Your task to perform on an android device: Search for macbook air on ebay, select the first entry, and add it to the cart. Image 0: 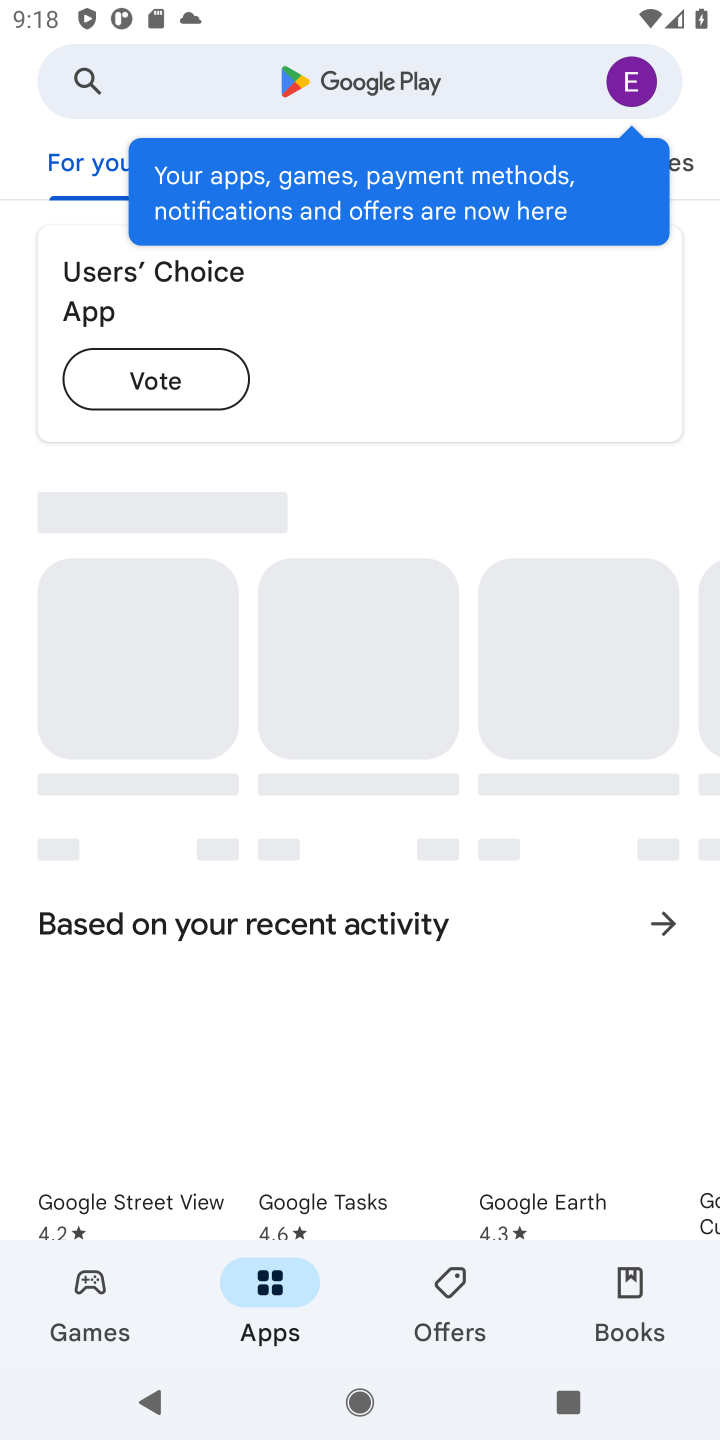
Step 0: press home button
Your task to perform on an android device: Search for macbook air on ebay, select the first entry, and add it to the cart. Image 1: 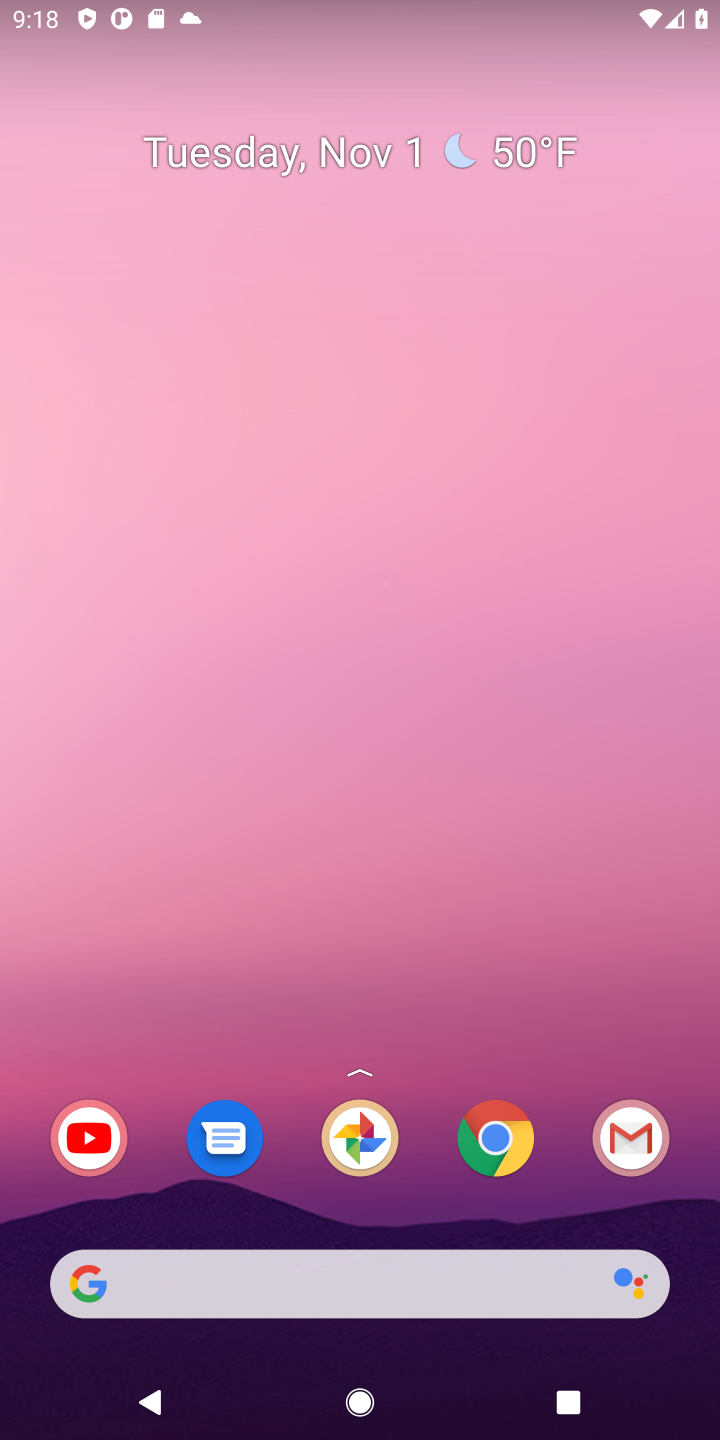
Step 1: click (495, 1136)
Your task to perform on an android device: Search for macbook air on ebay, select the first entry, and add it to the cart. Image 2: 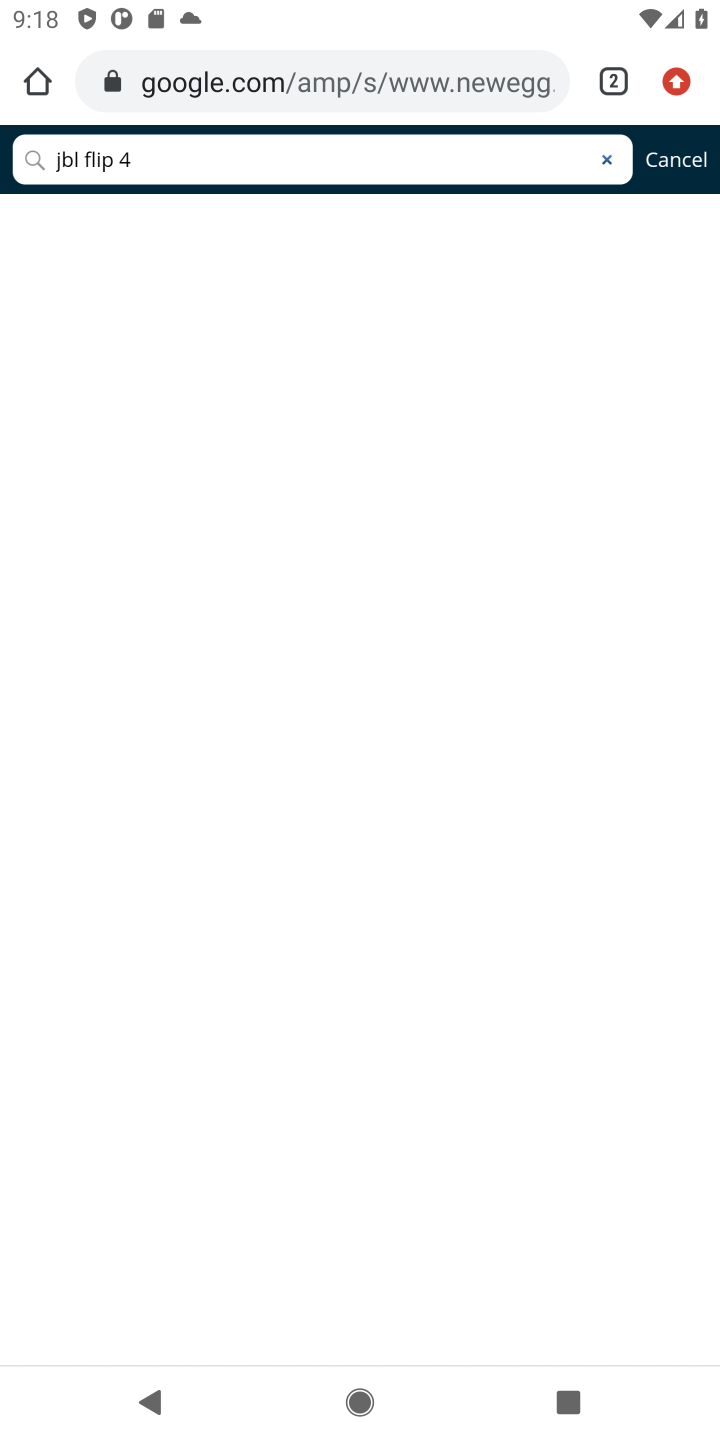
Step 2: click (406, 77)
Your task to perform on an android device: Search for macbook air on ebay, select the first entry, and add it to the cart. Image 3: 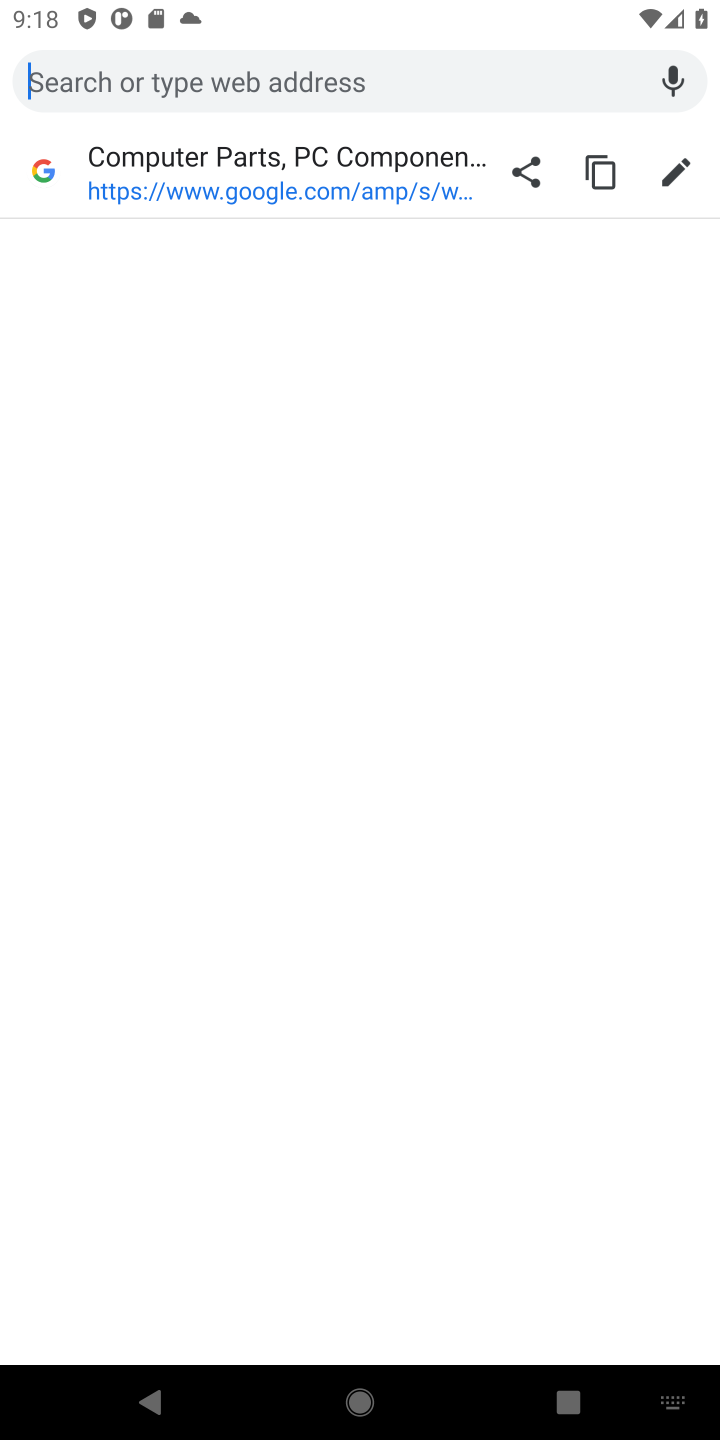
Step 3: click (403, 81)
Your task to perform on an android device: Search for macbook air on ebay, select the first entry, and add it to the cart. Image 4: 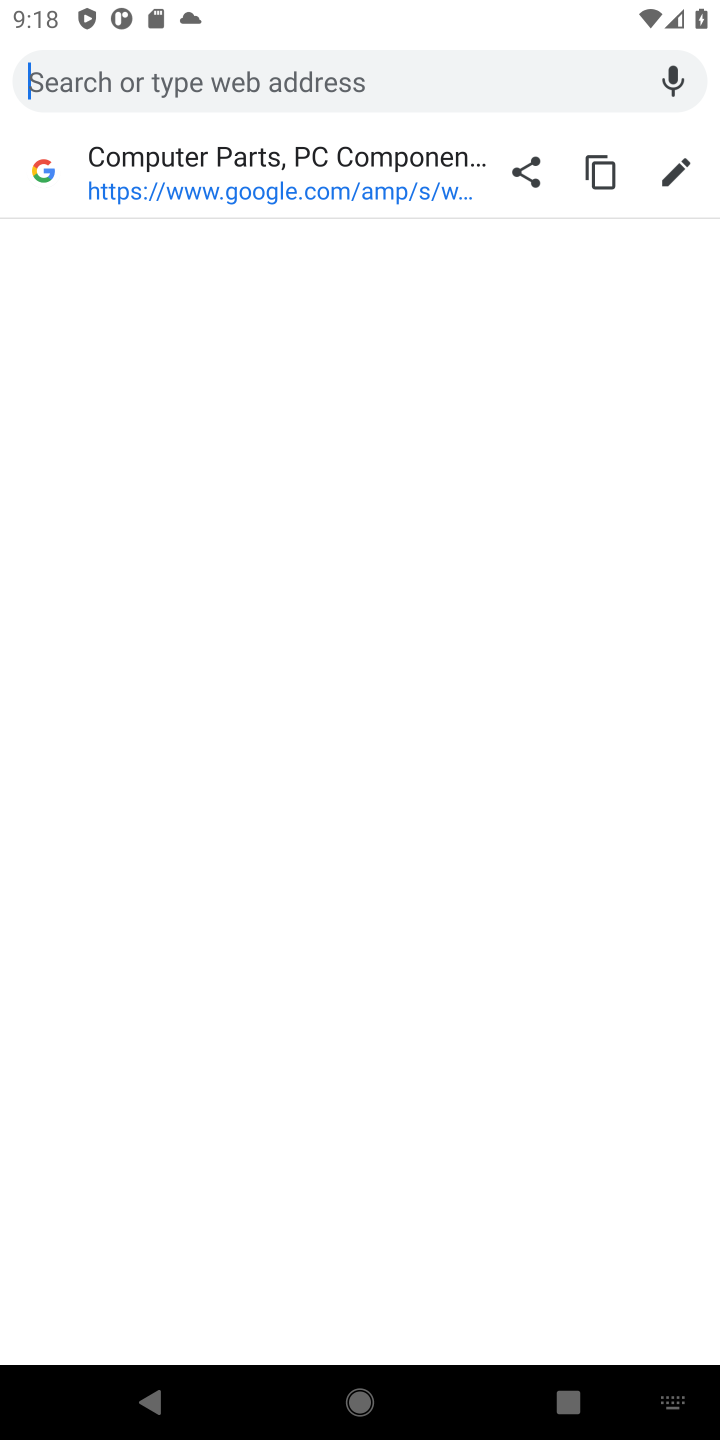
Step 4: type "ebay"
Your task to perform on an android device: Search for macbook air on ebay, select the first entry, and add it to the cart. Image 5: 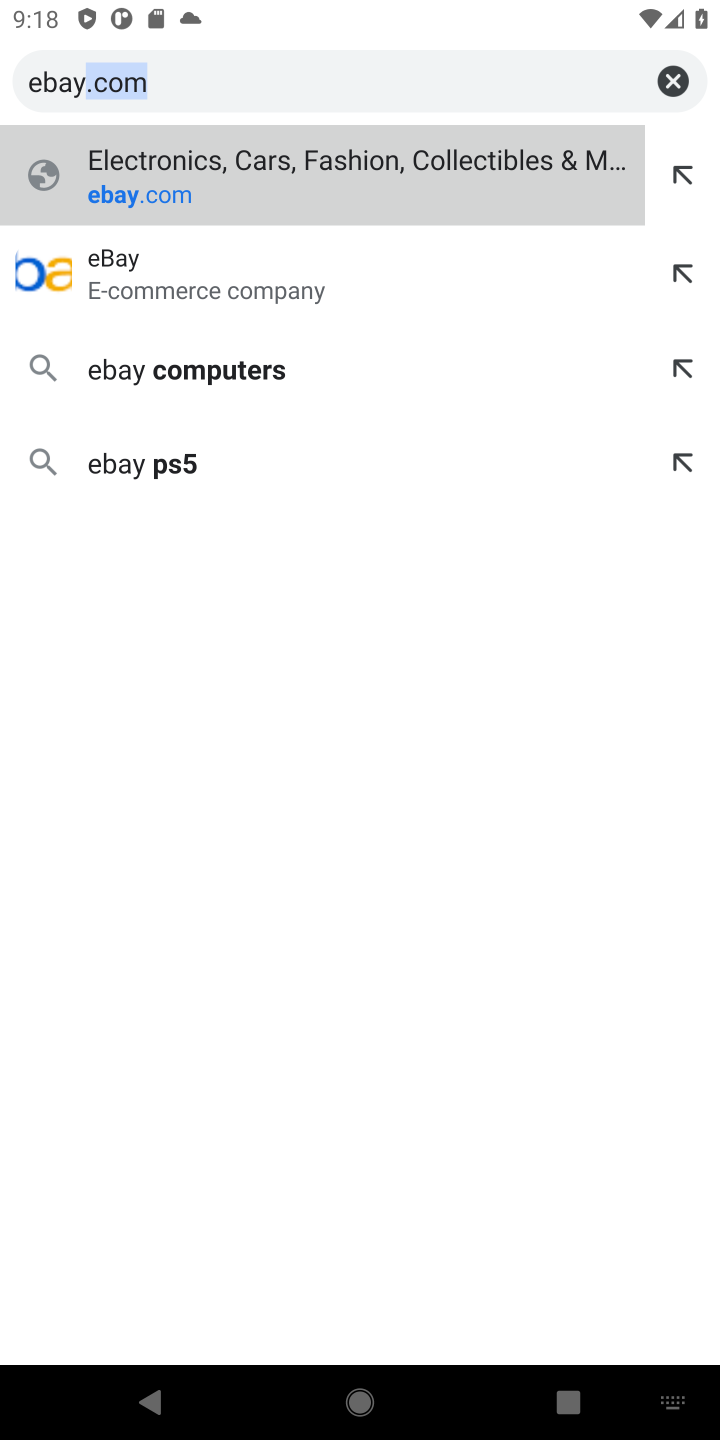
Step 5: click (118, 284)
Your task to perform on an android device: Search for macbook air on ebay, select the first entry, and add it to the cart. Image 6: 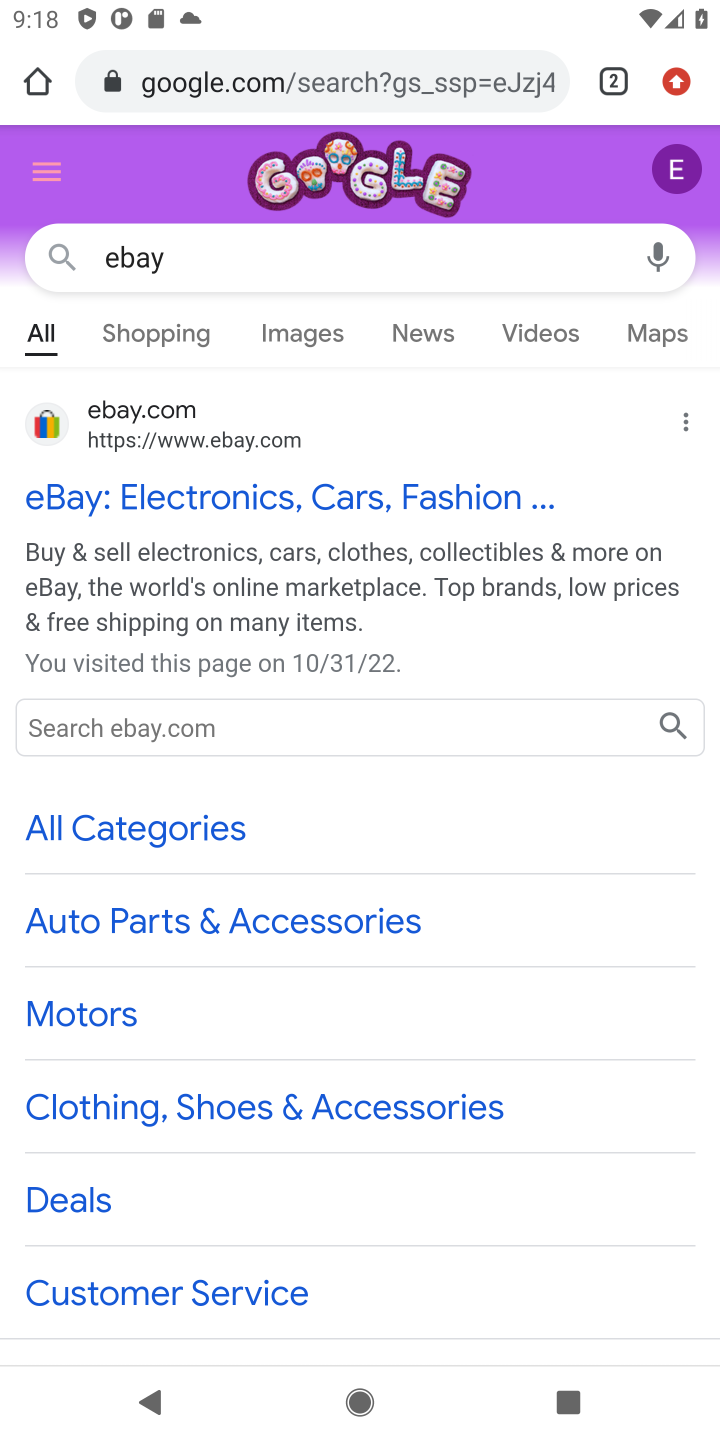
Step 6: click (211, 499)
Your task to perform on an android device: Search for macbook air on ebay, select the first entry, and add it to the cart. Image 7: 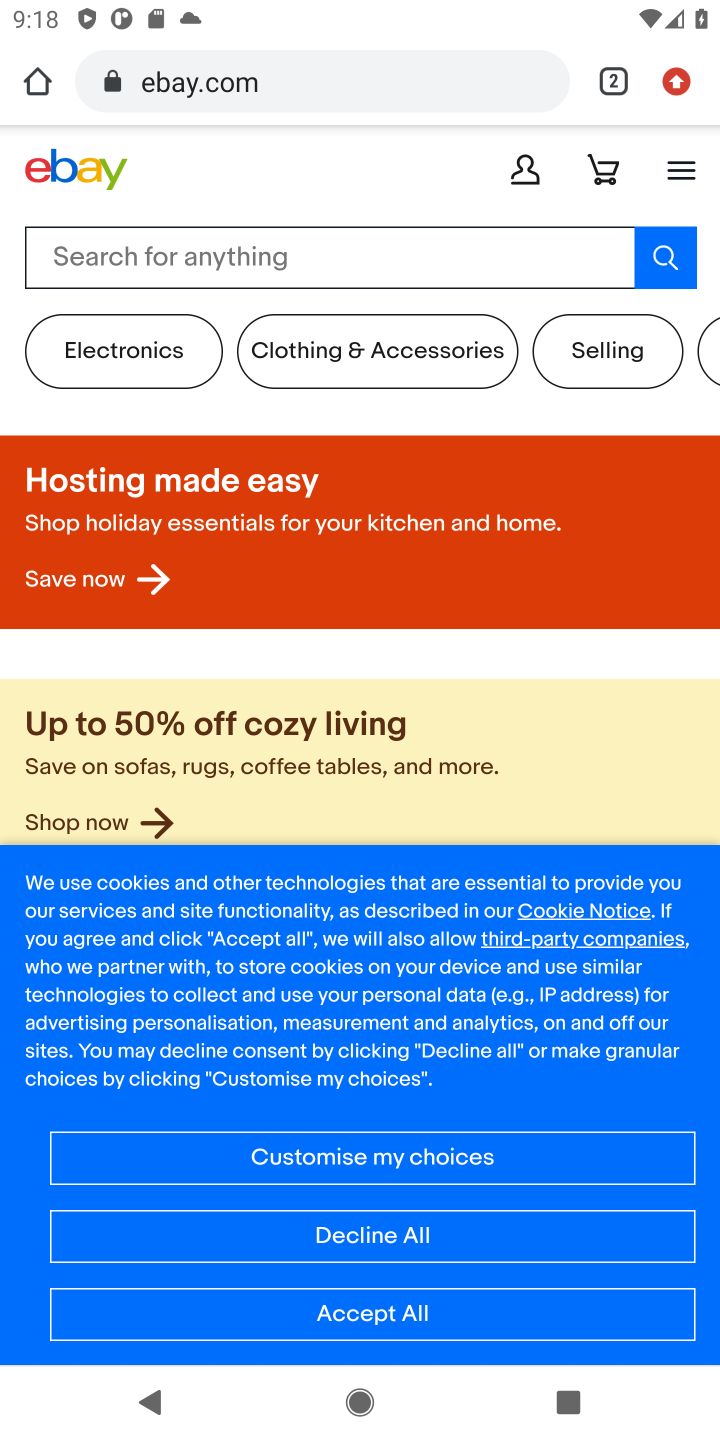
Step 7: click (334, 1316)
Your task to perform on an android device: Search for macbook air on ebay, select the first entry, and add it to the cart. Image 8: 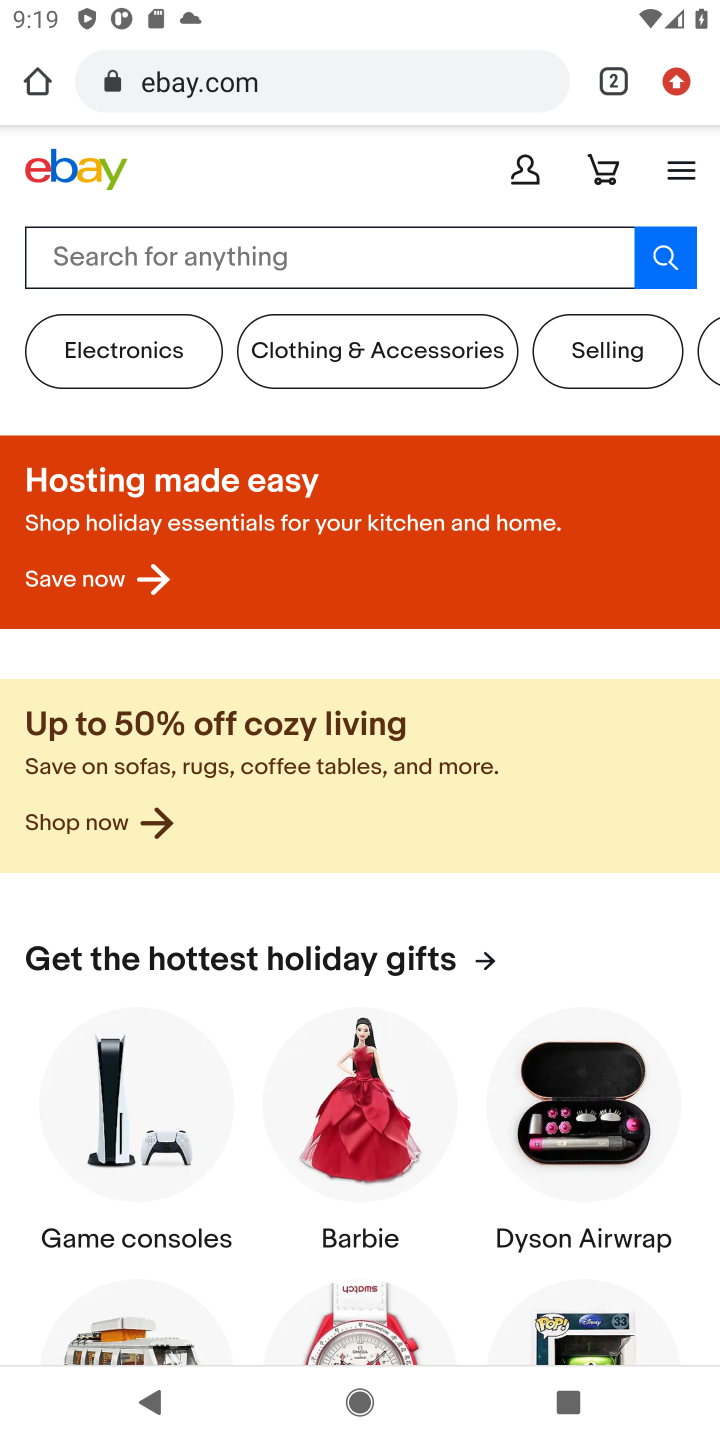
Step 8: click (339, 254)
Your task to perform on an android device: Search for macbook air on ebay, select the first entry, and add it to the cart. Image 9: 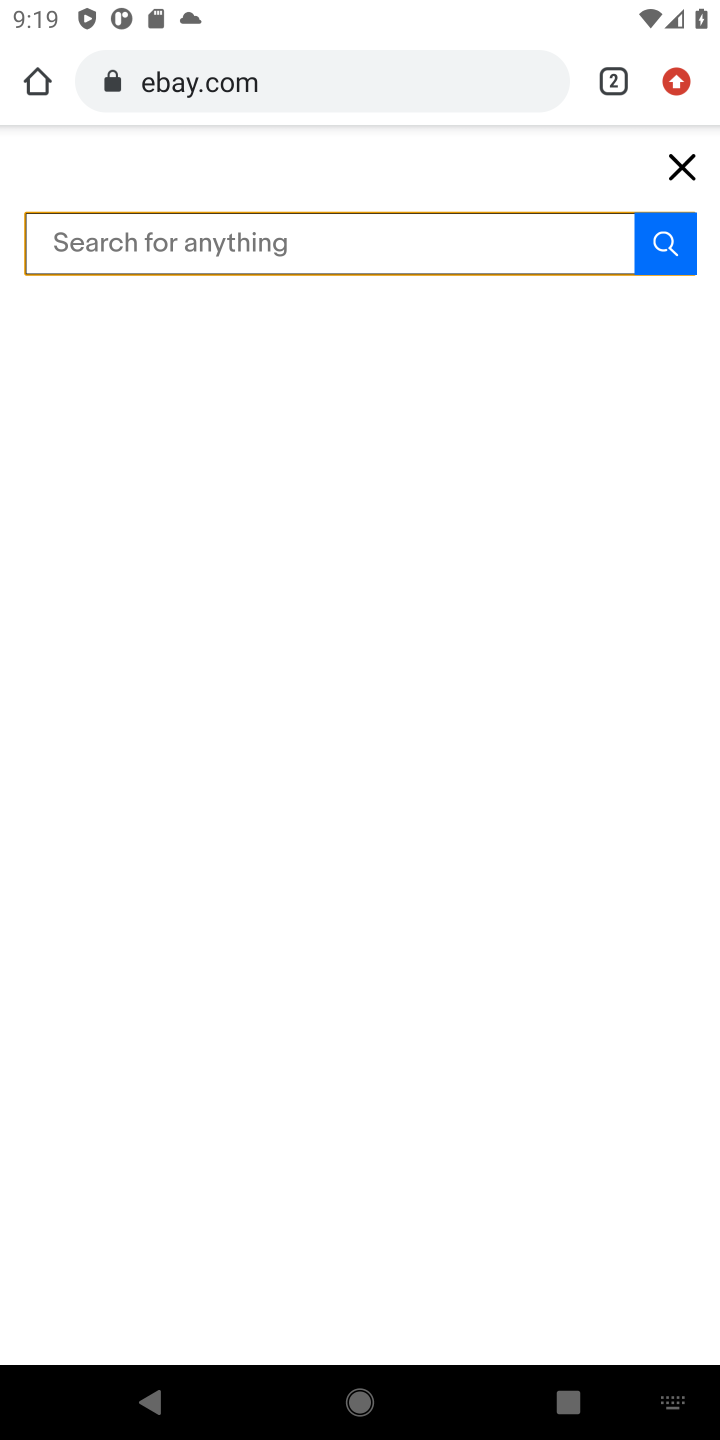
Step 9: type "macbook air"
Your task to perform on an android device: Search for macbook air on ebay, select the first entry, and add it to the cart. Image 10: 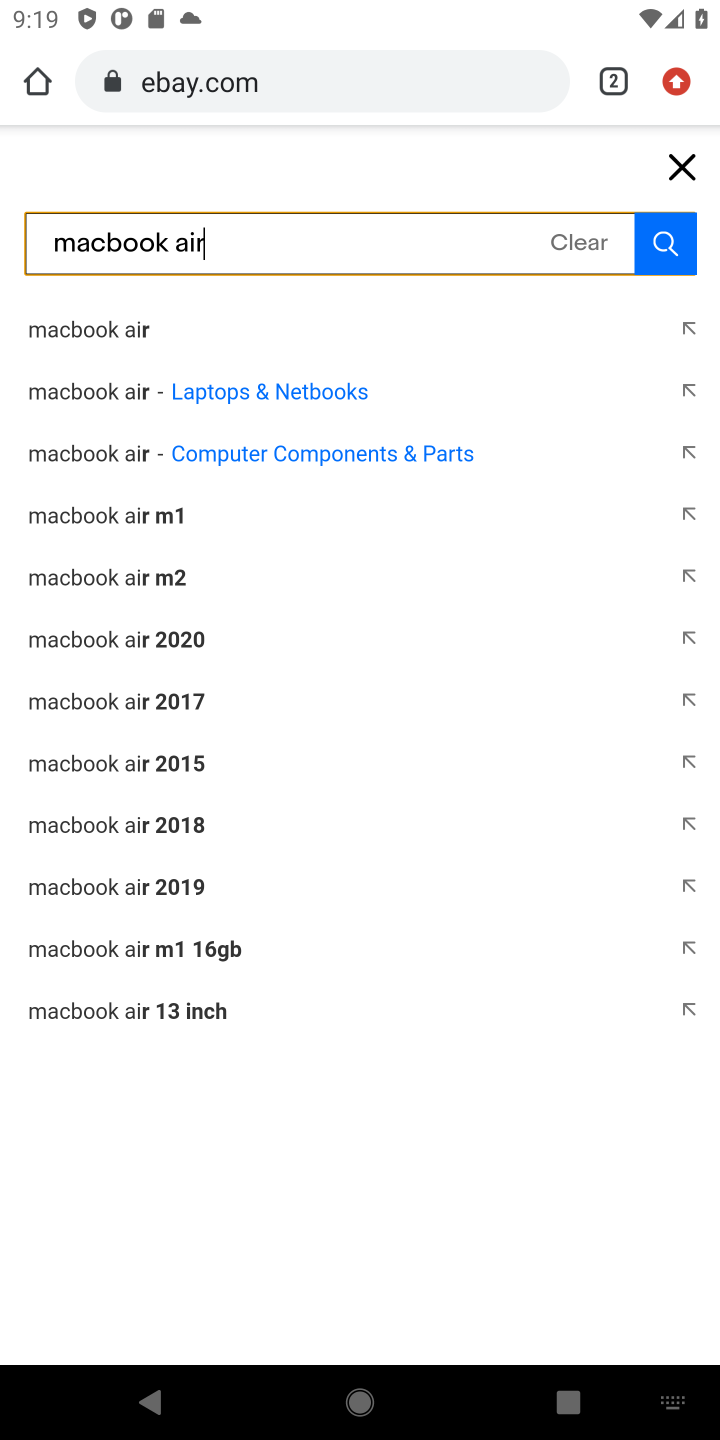
Step 10: click (665, 242)
Your task to perform on an android device: Search for macbook air on ebay, select the first entry, and add it to the cart. Image 11: 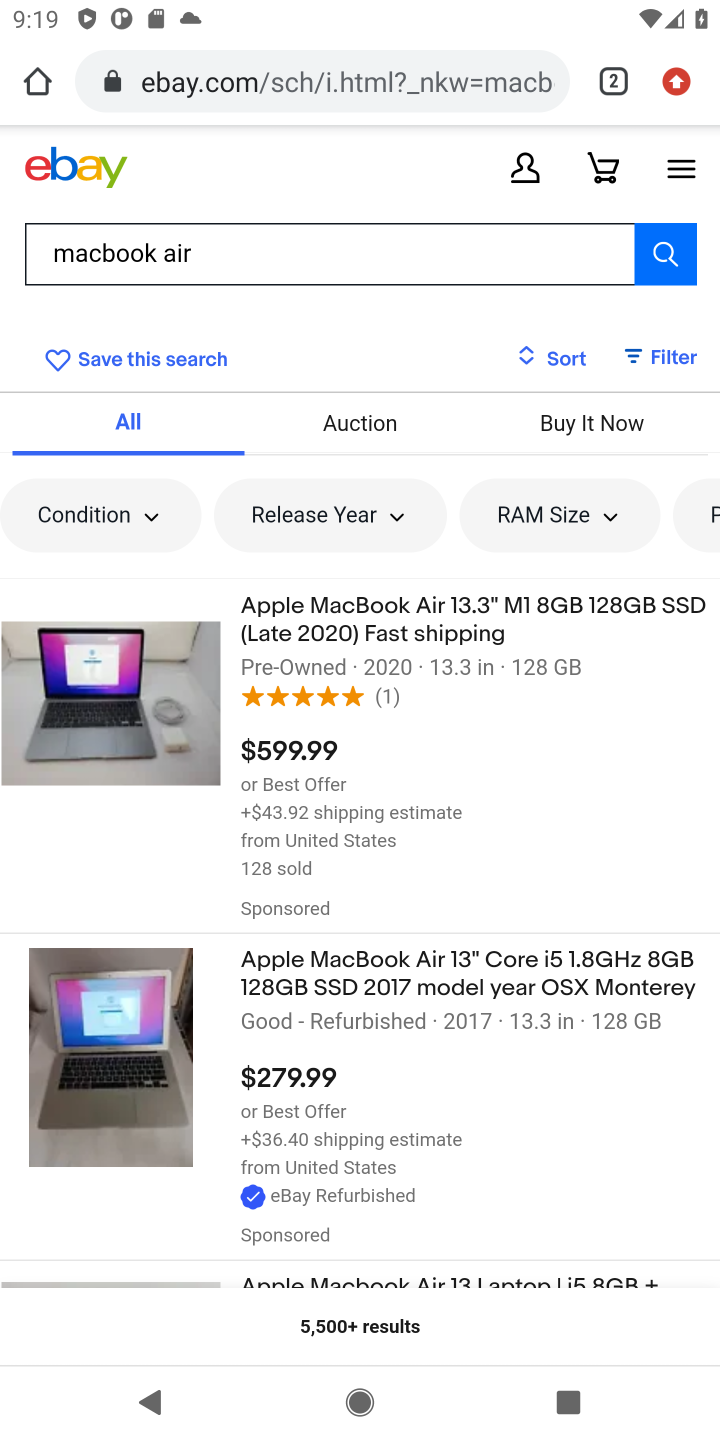
Step 11: click (438, 632)
Your task to perform on an android device: Search for macbook air on ebay, select the first entry, and add it to the cart. Image 12: 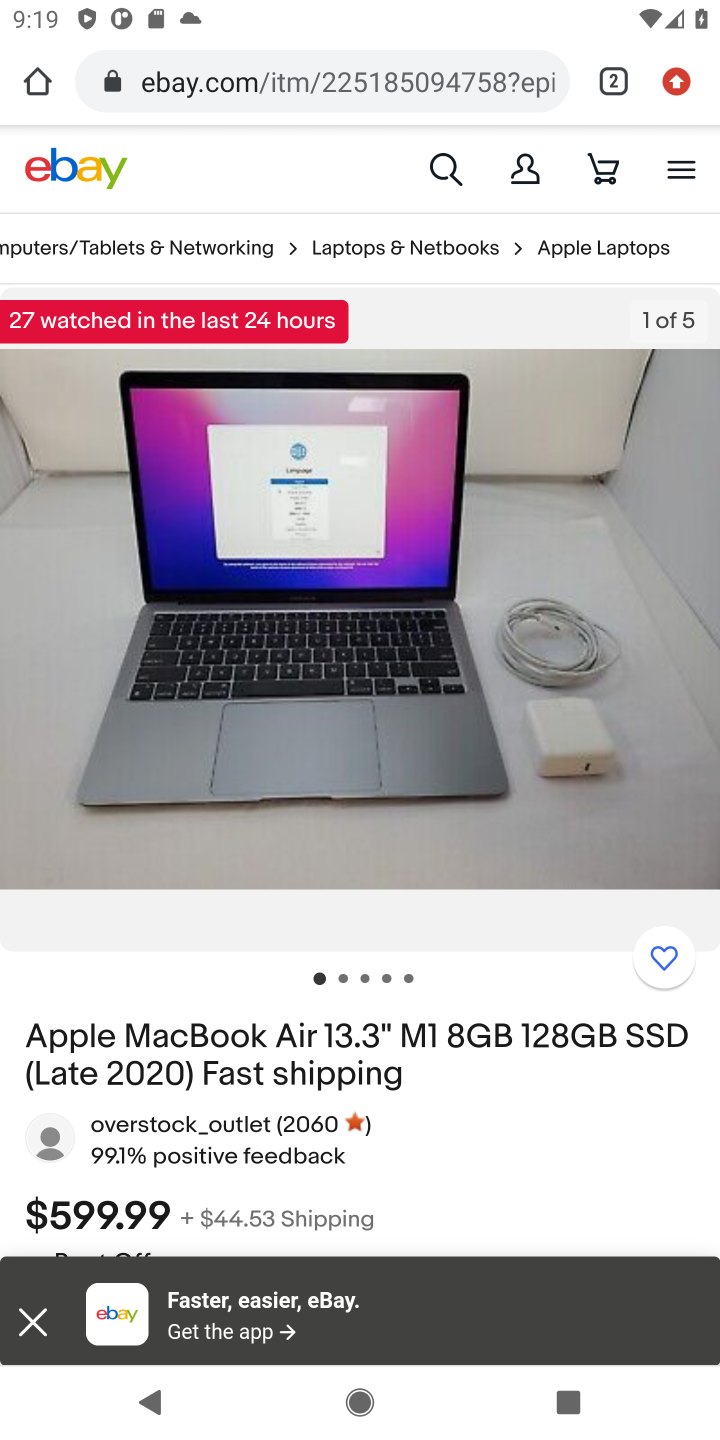
Step 12: drag from (424, 876) to (447, 493)
Your task to perform on an android device: Search for macbook air on ebay, select the first entry, and add it to the cart. Image 13: 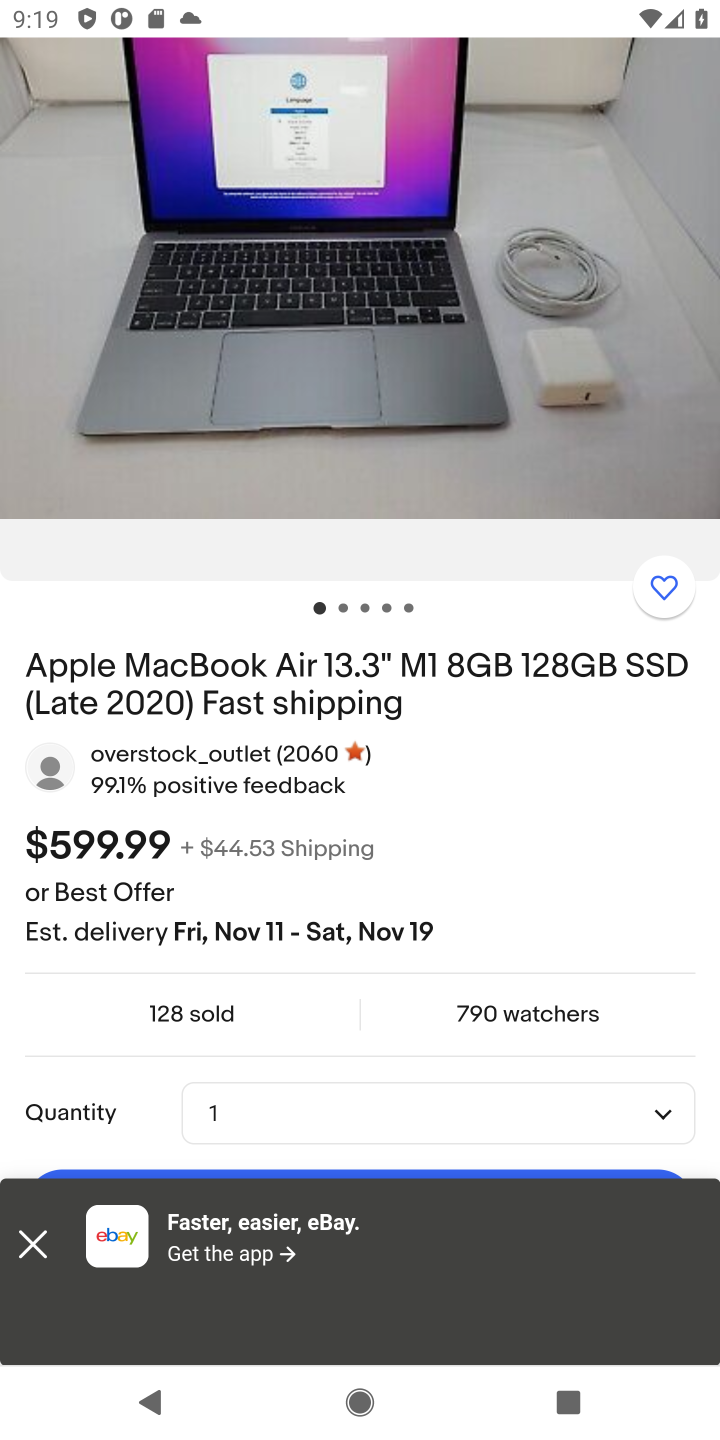
Step 13: drag from (464, 935) to (468, 472)
Your task to perform on an android device: Search for macbook air on ebay, select the first entry, and add it to the cart. Image 14: 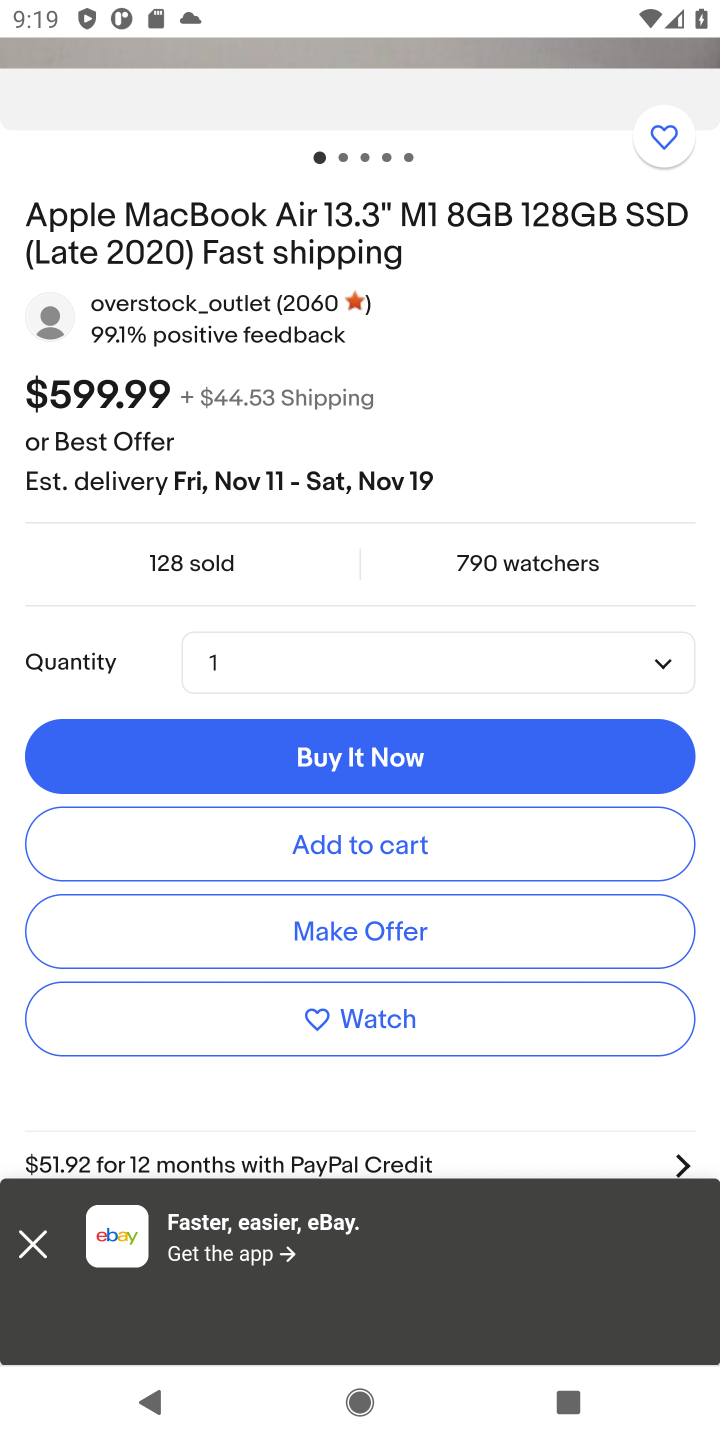
Step 14: click (373, 852)
Your task to perform on an android device: Search for macbook air on ebay, select the first entry, and add it to the cart. Image 15: 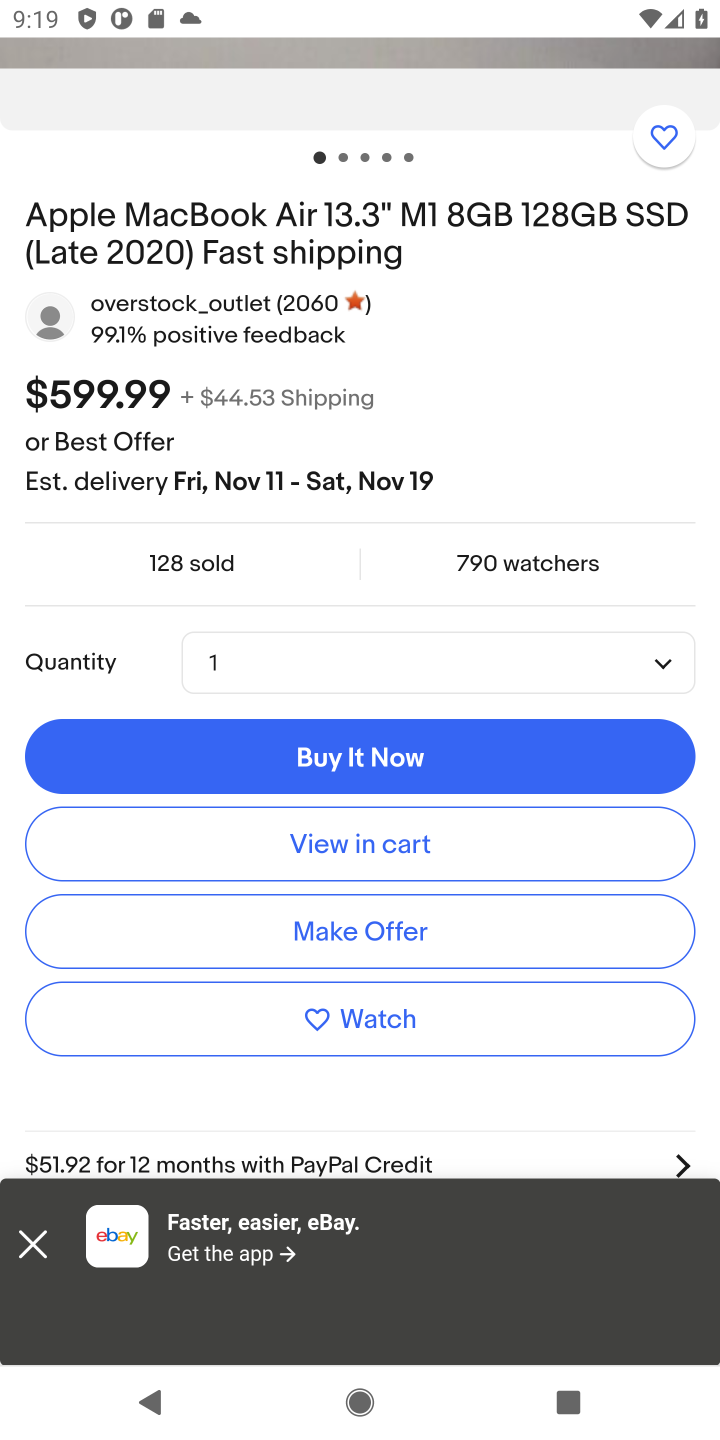
Step 15: click (373, 852)
Your task to perform on an android device: Search for macbook air on ebay, select the first entry, and add it to the cart. Image 16: 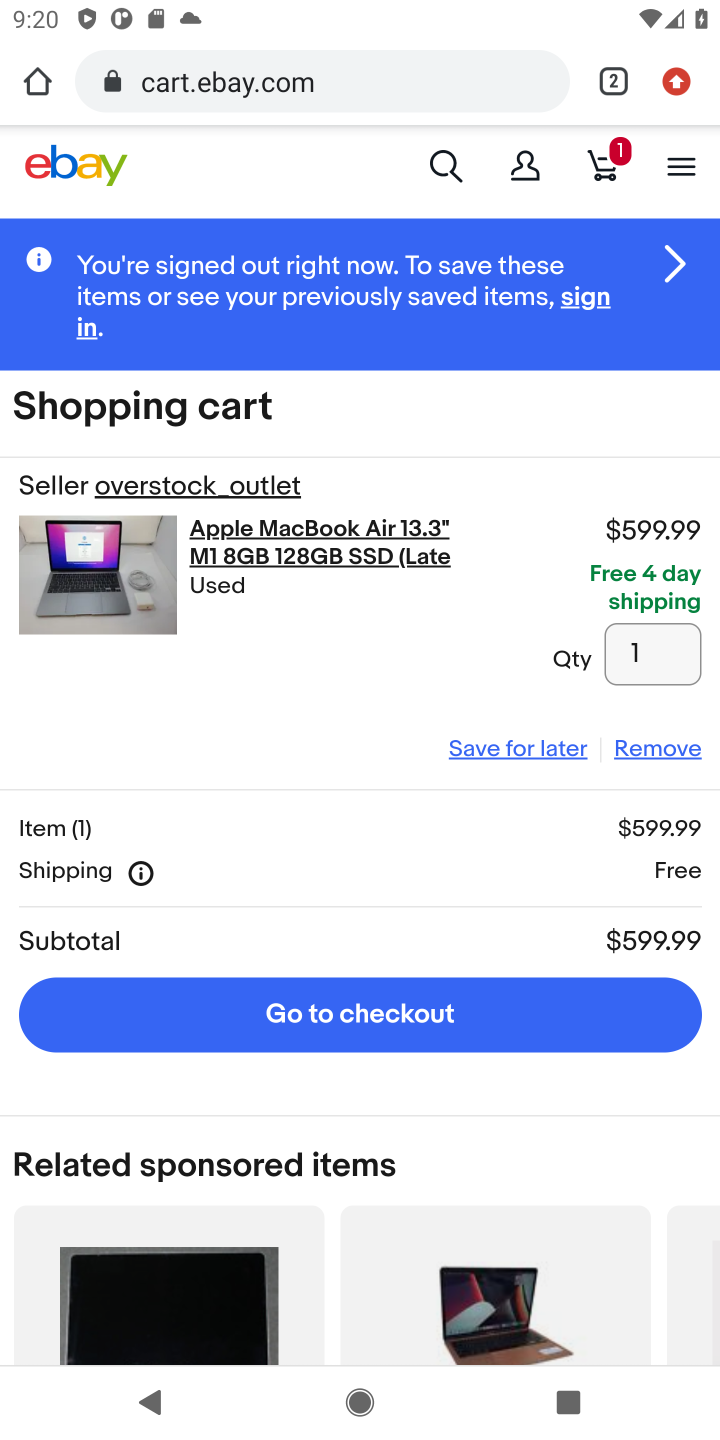
Step 16: task complete